Your task to perform on an android device: turn on improve location accuracy Image 0: 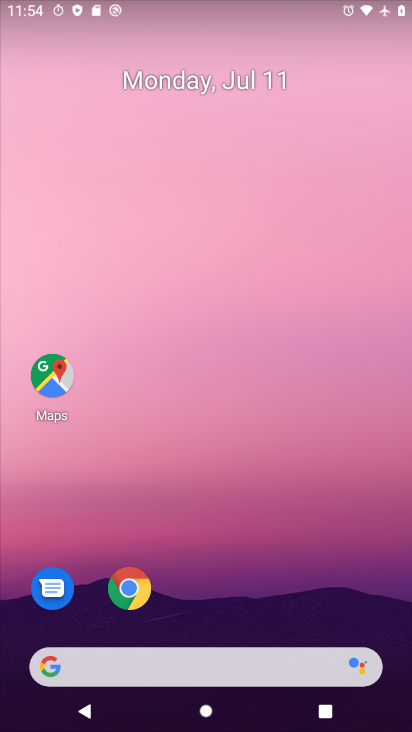
Step 0: drag from (128, 680) to (282, 181)
Your task to perform on an android device: turn on improve location accuracy Image 1: 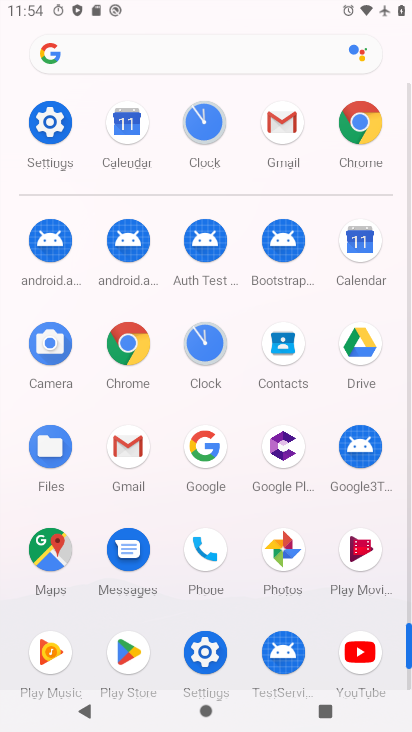
Step 1: click (55, 120)
Your task to perform on an android device: turn on improve location accuracy Image 2: 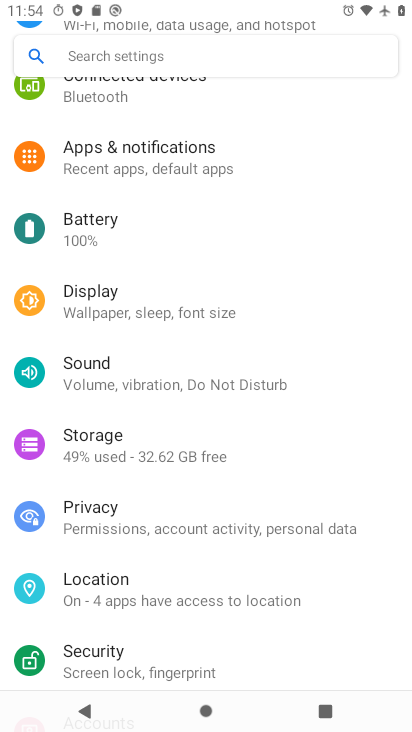
Step 2: click (136, 586)
Your task to perform on an android device: turn on improve location accuracy Image 3: 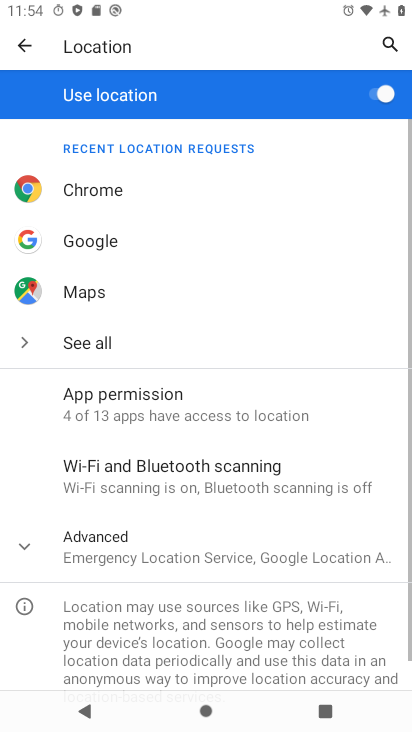
Step 3: click (129, 554)
Your task to perform on an android device: turn on improve location accuracy Image 4: 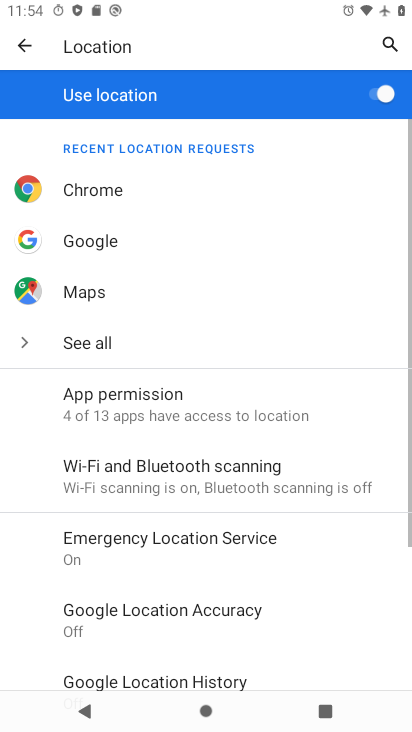
Step 4: drag from (194, 571) to (286, 260)
Your task to perform on an android device: turn on improve location accuracy Image 5: 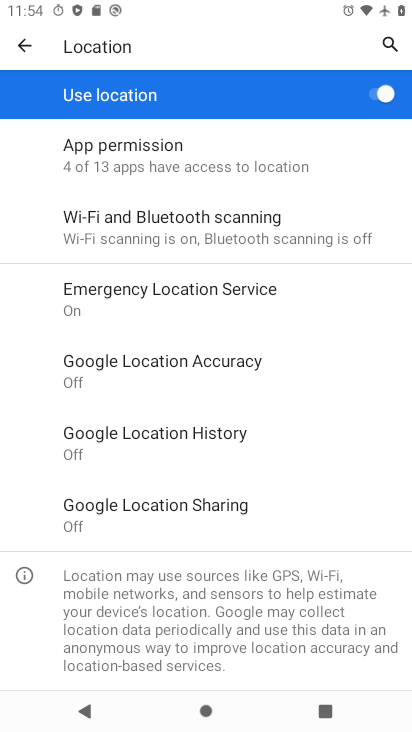
Step 5: click (212, 364)
Your task to perform on an android device: turn on improve location accuracy Image 6: 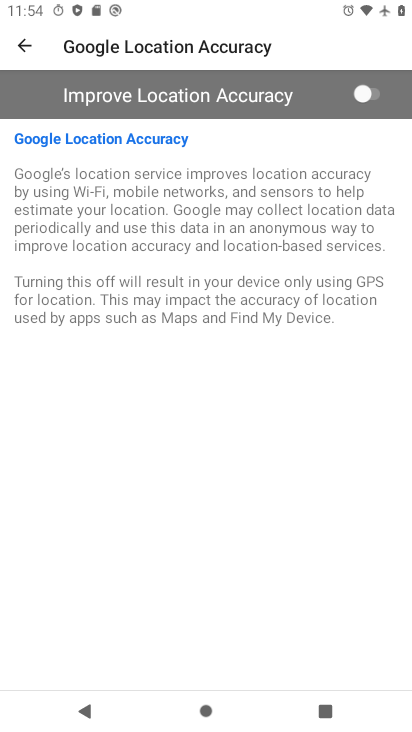
Step 6: click (377, 91)
Your task to perform on an android device: turn on improve location accuracy Image 7: 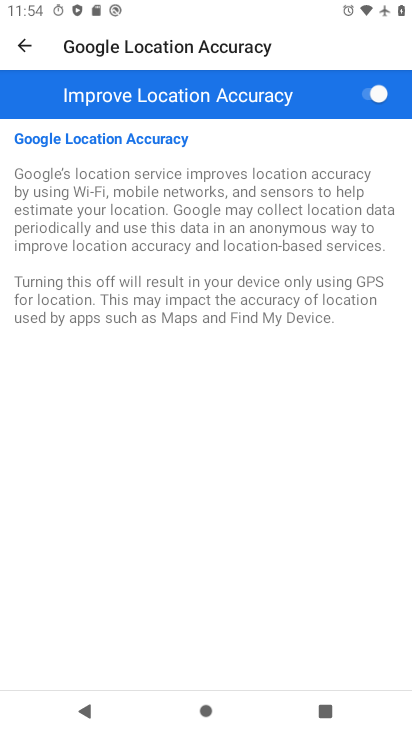
Step 7: task complete